Your task to perform on an android device: Open Youtube and go to the subscriptions tab Image 0: 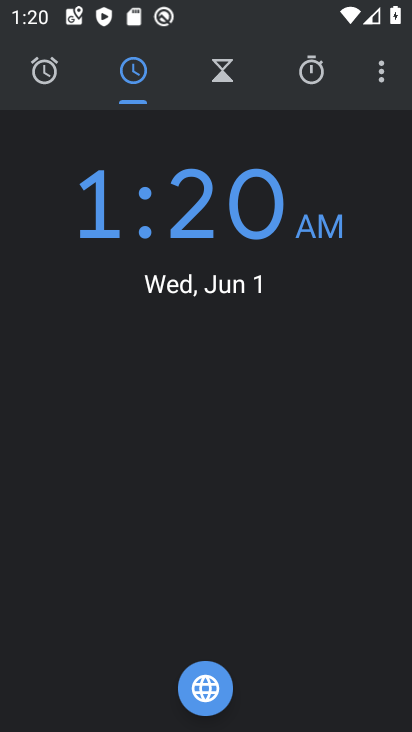
Step 0: press home button
Your task to perform on an android device: Open Youtube and go to the subscriptions tab Image 1: 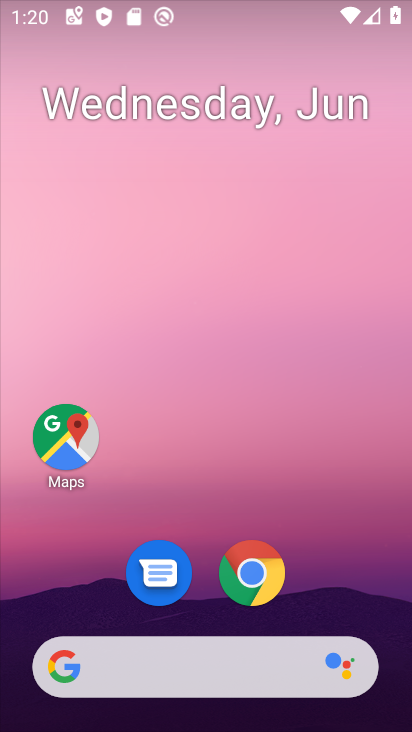
Step 1: drag from (386, 574) to (372, 147)
Your task to perform on an android device: Open Youtube and go to the subscriptions tab Image 2: 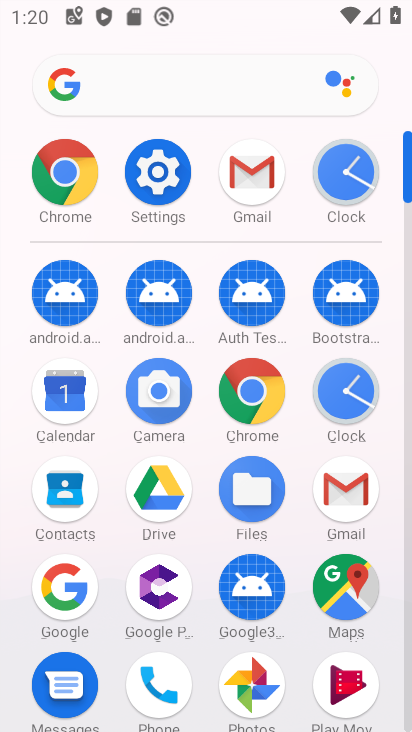
Step 2: drag from (300, 584) to (307, 349)
Your task to perform on an android device: Open Youtube and go to the subscriptions tab Image 3: 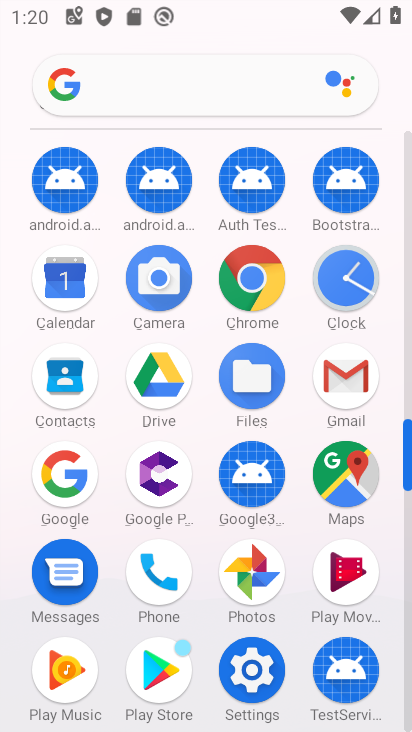
Step 3: drag from (101, 687) to (166, 407)
Your task to perform on an android device: Open Youtube and go to the subscriptions tab Image 4: 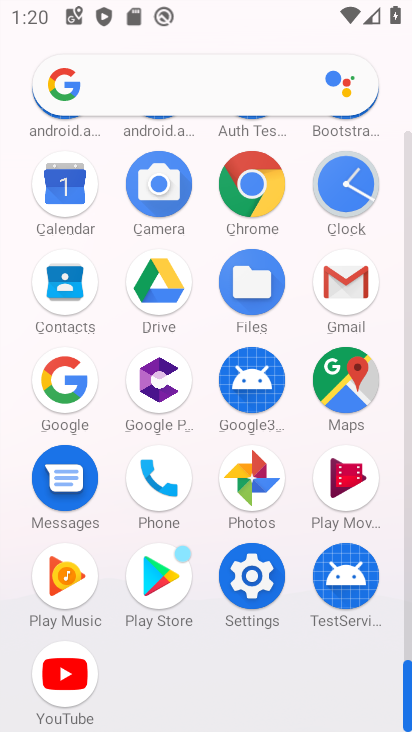
Step 4: click (76, 662)
Your task to perform on an android device: Open Youtube and go to the subscriptions tab Image 5: 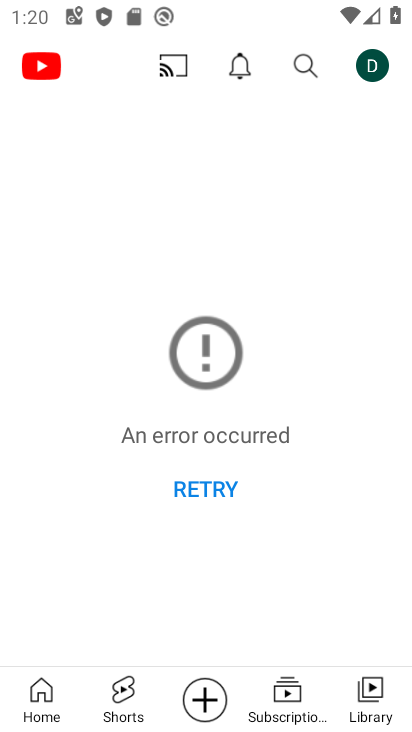
Step 5: click (290, 692)
Your task to perform on an android device: Open Youtube and go to the subscriptions tab Image 6: 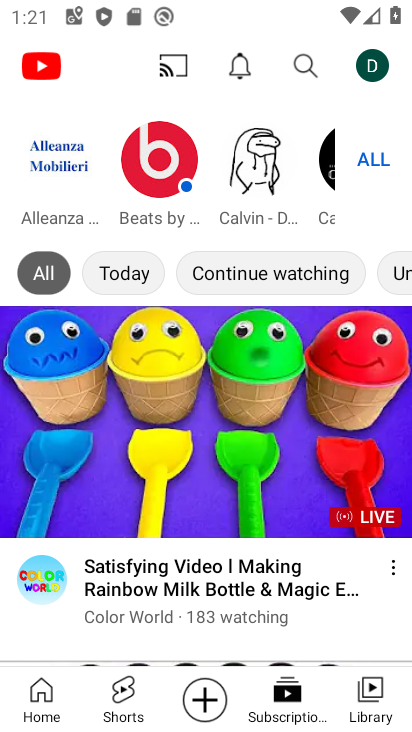
Step 6: task complete